Your task to perform on an android device: toggle translation in the chrome app Image 0: 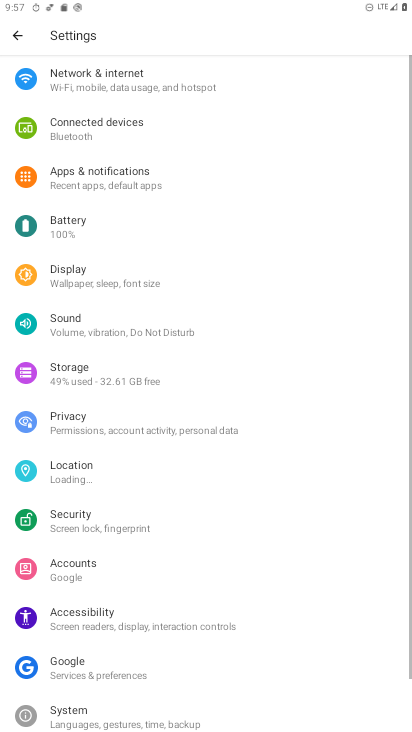
Step 0: press home button
Your task to perform on an android device: toggle translation in the chrome app Image 1: 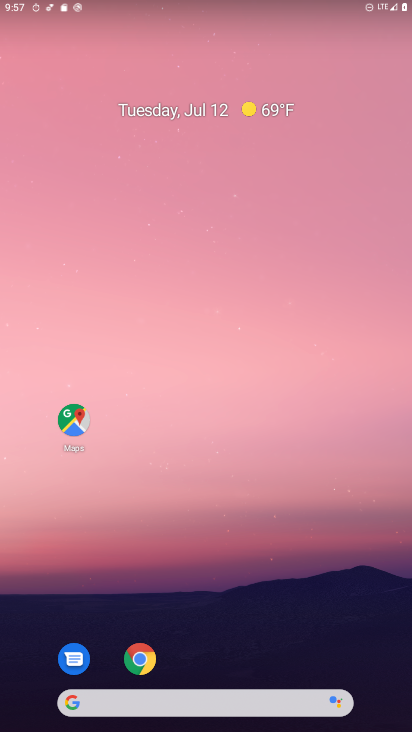
Step 1: drag from (211, 717) to (207, 1)
Your task to perform on an android device: toggle translation in the chrome app Image 2: 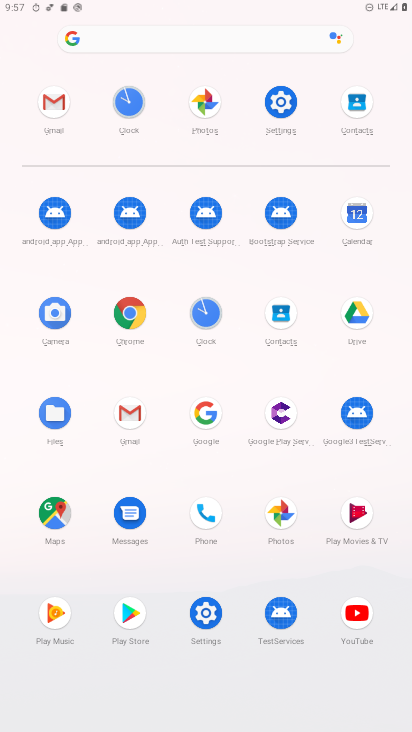
Step 2: click (131, 313)
Your task to perform on an android device: toggle translation in the chrome app Image 3: 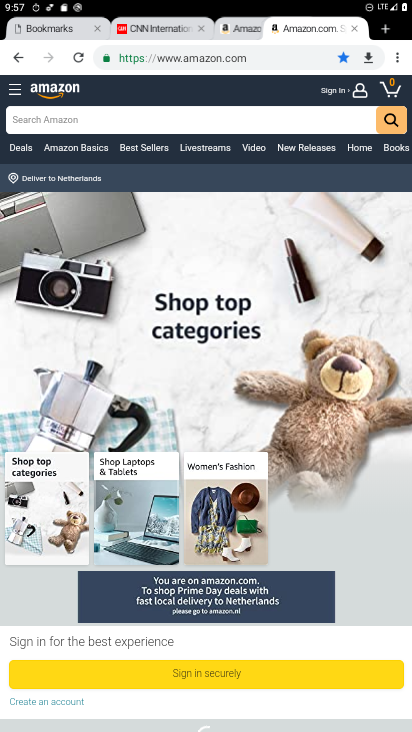
Step 3: click (396, 60)
Your task to perform on an android device: toggle translation in the chrome app Image 4: 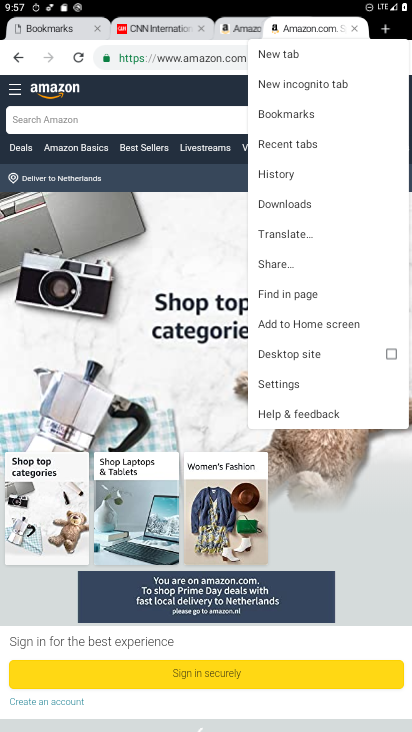
Step 4: click (282, 374)
Your task to perform on an android device: toggle translation in the chrome app Image 5: 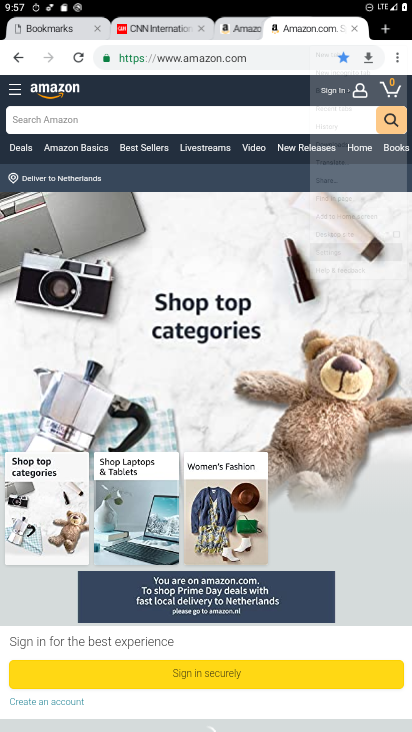
Step 5: click (282, 383)
Your task to perform on an android device: toggle translation in the chrome app Image 6: 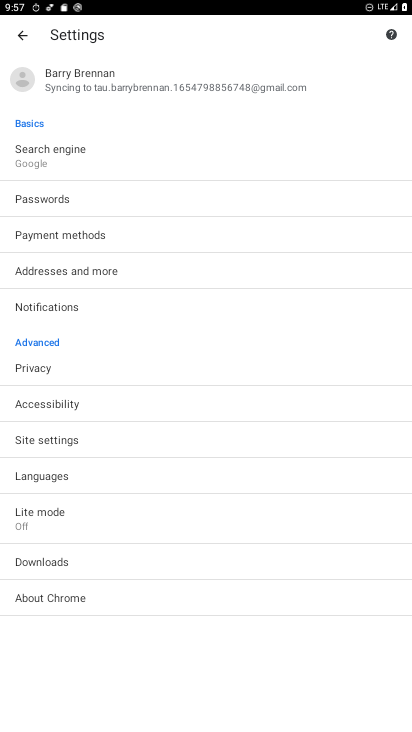
Step 6: click (53, 475)
Your task to perform on an android device: toggle translation in the chrome app Image 7: 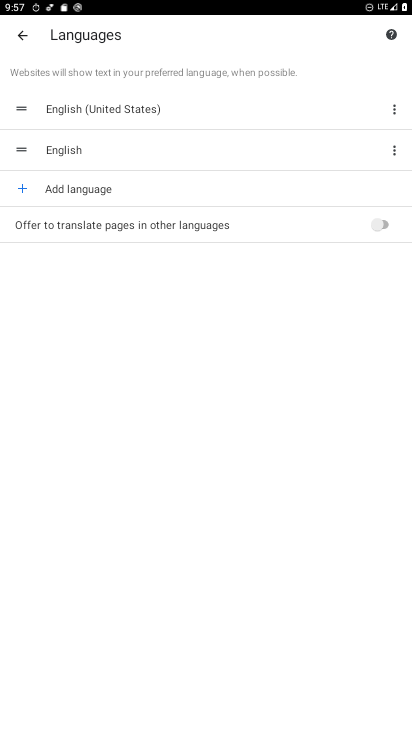
Step 7: click (378, 221)
Your task to perform on an android device: toggle translation in the chrome app Image 8: 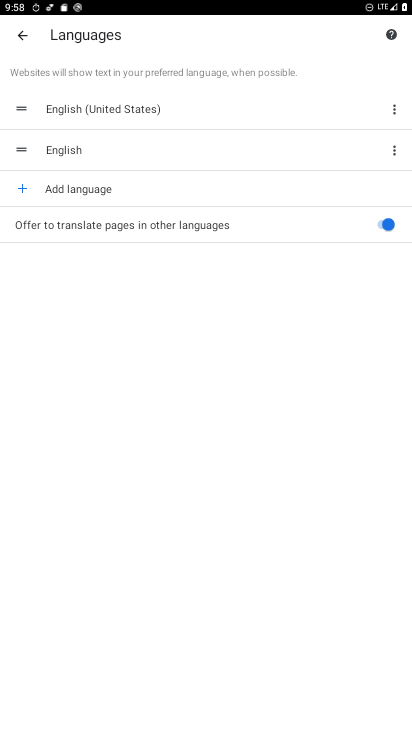
Step 8: task complete